Your task to perform on an android device: toggle show notifications on the lock screen Image 0: 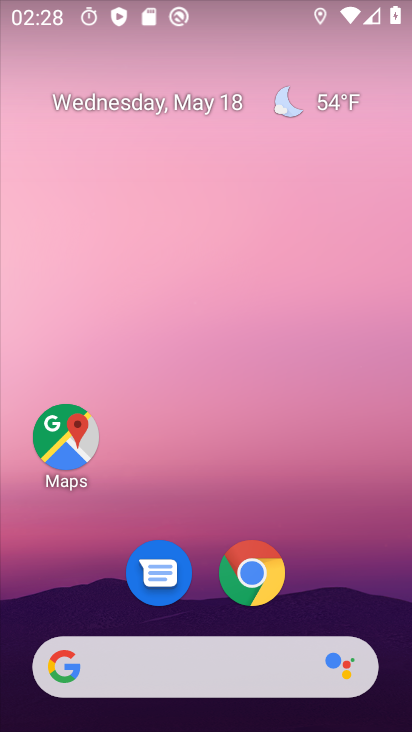
Step 0: drag from (201, 616) to (212, 259)
Your task to perform on an android device: toggle show notifications on the lock screen Image 1: 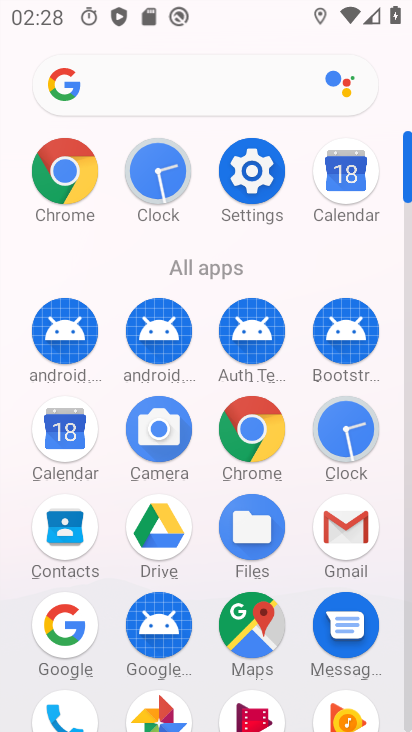
Step 1: click (251, 190)
Your task to perform on an android device: toggle show notifications on the lock screen Image 2: 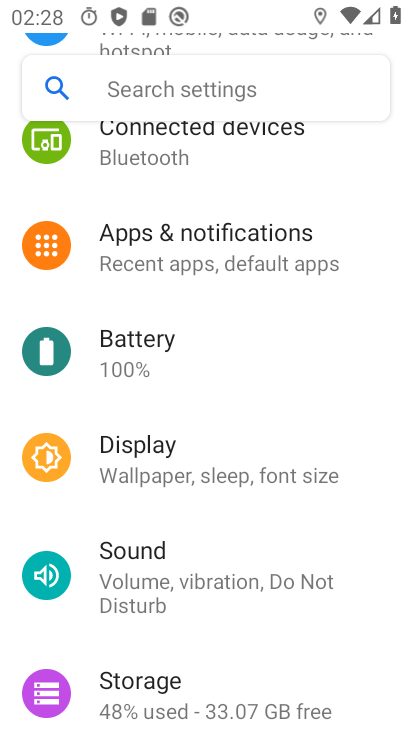
Step 2: click (213, 257)
Your task to perform on an android device: toggle show notifications on the lock screen Image 3: 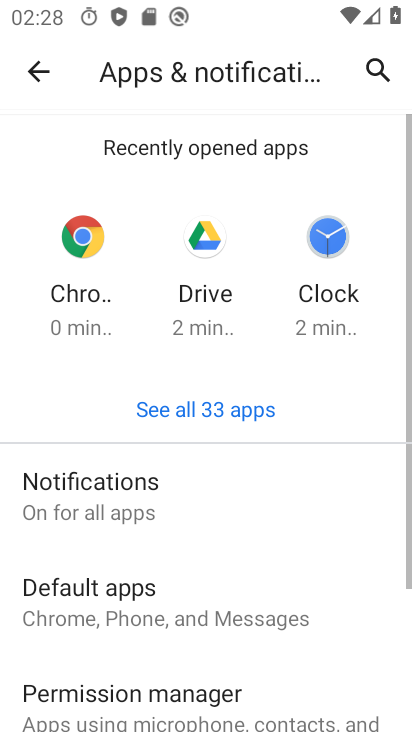
Step 3: click (151, 503)
Your task to perform on an android device: toggle show notifications on the lock screen Image 4: 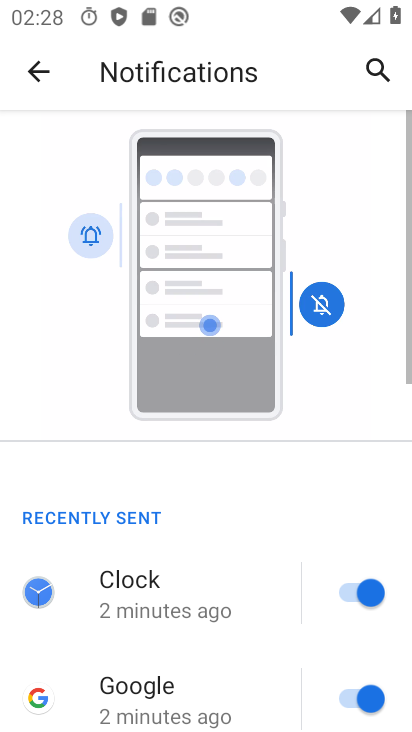
Step 4: drag from (189, 612) to (208, 309)
Your task to perform on an android device: toggle show notifications on the lock screen Image 5: 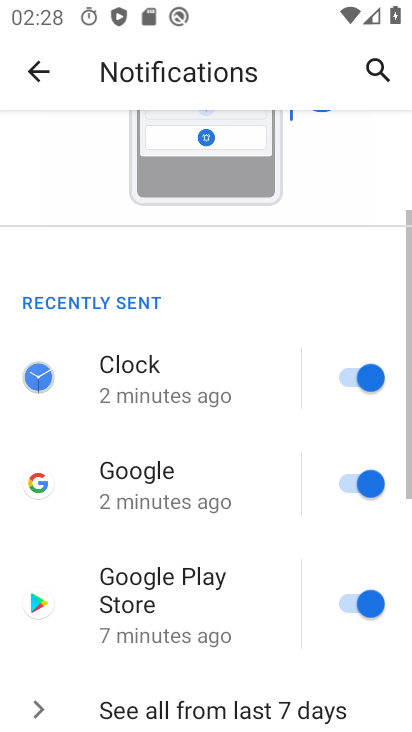
Step 5: drag from (189, 611) to (246, 326)
Your task to perform on an android device: toggle show notifications on the lock screen Image 6: 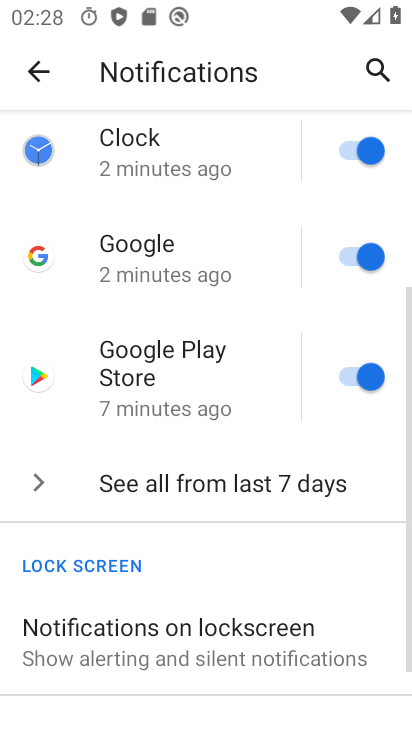
Step 6: drag from (201, 628) to (240, 429)
Your task to perform on an android device: toggle show notifications on the lock screen Image 7: 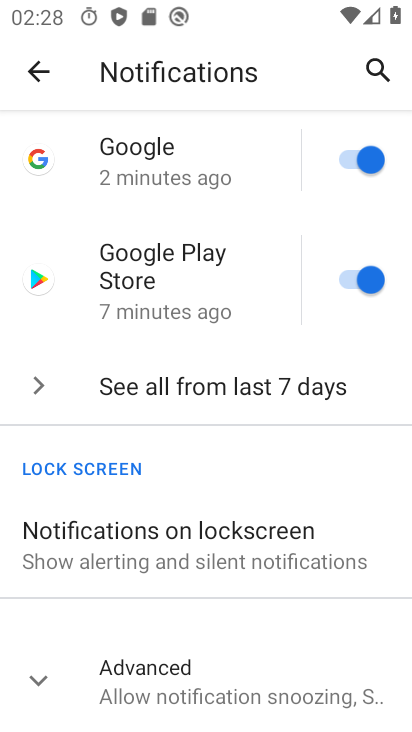
Step 7: click (207, 537)
Your task to perform on an android device: toggle show notifications on the lock screen Image 8: 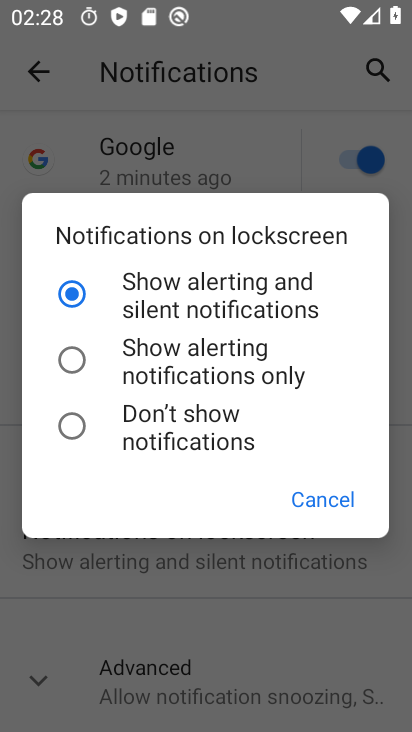
Step 8: click (207, 435)
Your task to perform on an android device: toggle show notifications on the lock screen Image 9: 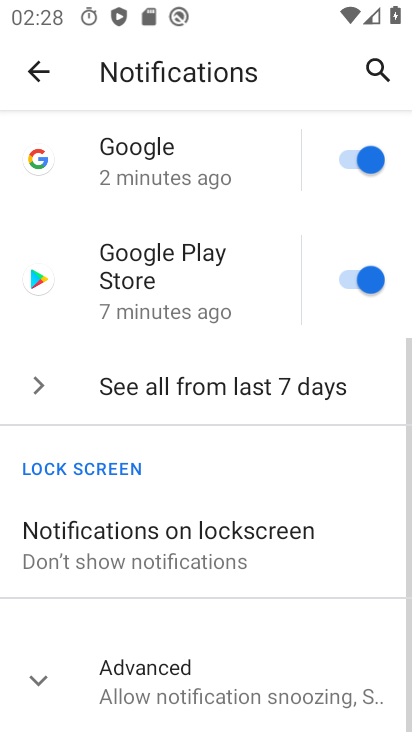
Step 9: task complete